Your task to perform on an android device: refresh tabs in the chrome app Image 0: 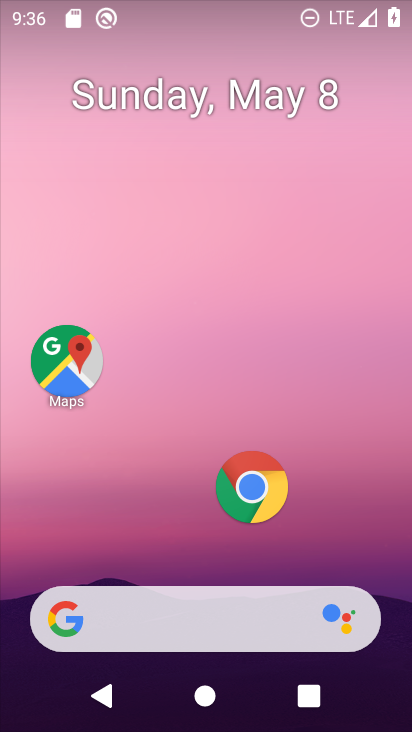
Step 0: click (262, 495)
Your task to perform on an android device: refresh tabs in the chrome app Image 1: 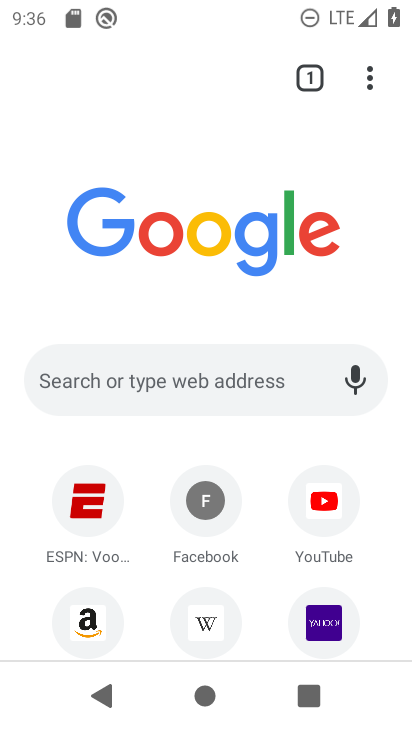
Step 1: click (366, 72)
Your task to perform on an android device: refresh tabs in the chrome app Image 2: 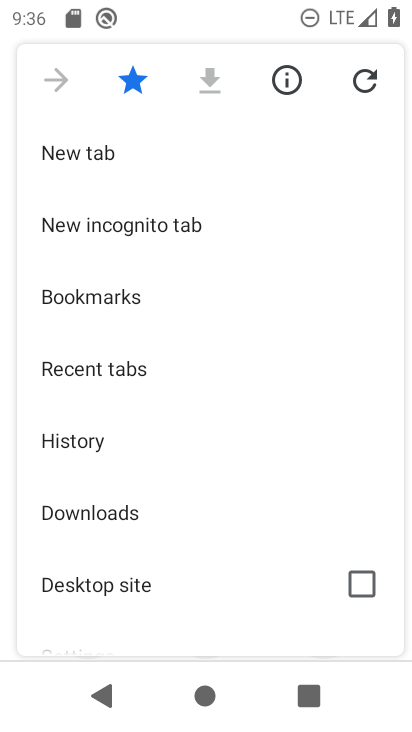
Step 2: click (366, 72)
Your task to perform on an android device: refresh tabs in the chrome app Image 3: 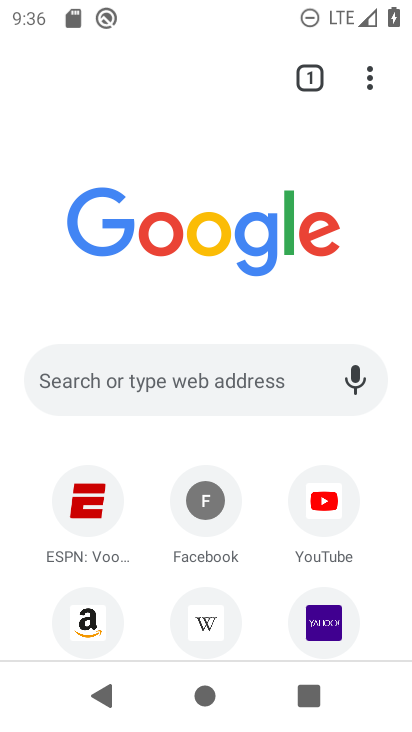
Step 3: task complete